Your task to perform on an android device: turn on translation in the chrome app Image 0: 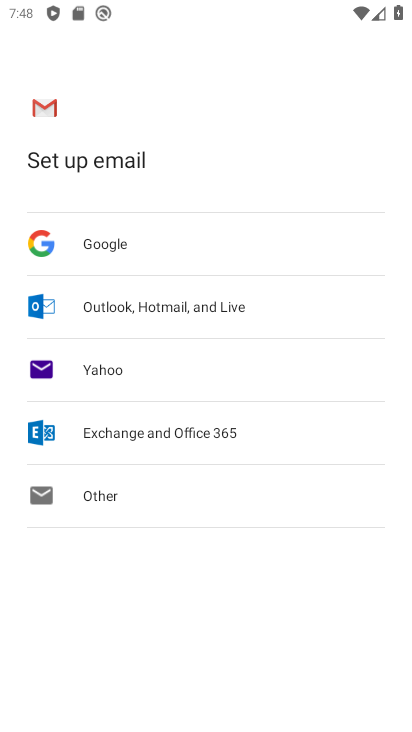
Step 0: press home button
Your task to perform on an android device: turn on translation in the chrome app Image 1: 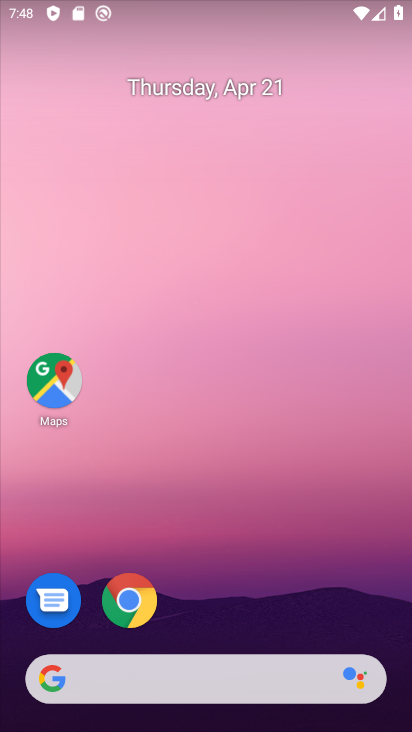
Step 1: click (128, 607)
Your task to perform on an android device: turn on translation in the chrome app Image 2: 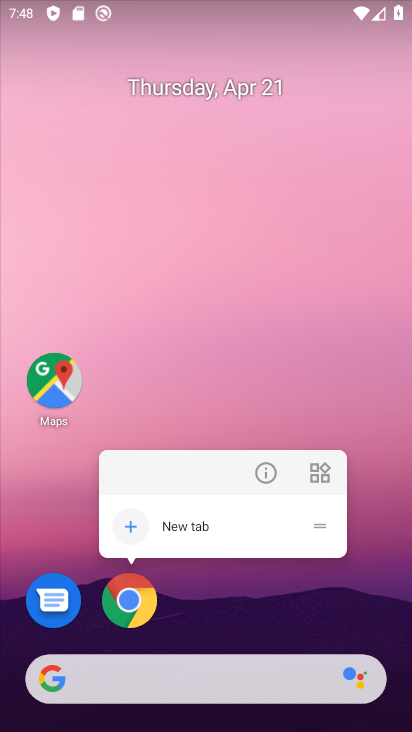
Step 2: click (134, 604)
Your task to perform on an android device: turn on translation in the chrome app Image 3: 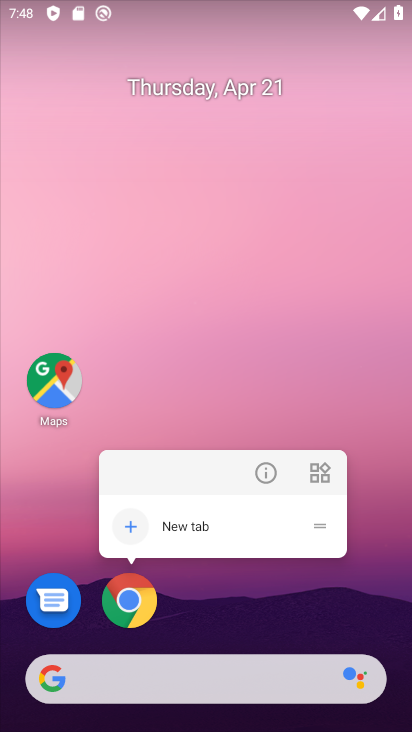
Step 3: click (131, 617)
Your task to perform on an android device: turn on translation in the chrome app Image 4: 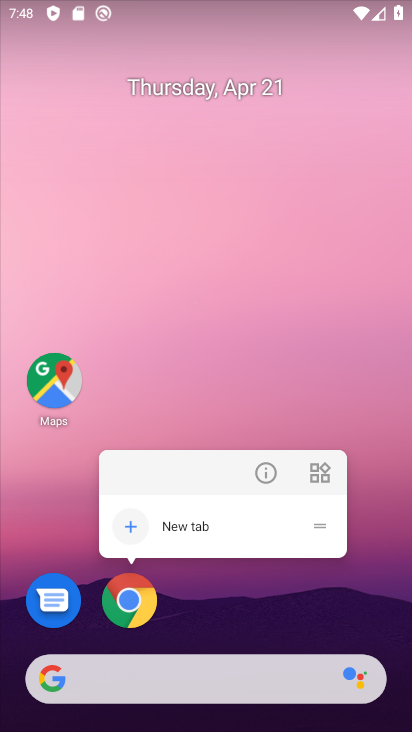
Step 4: click (127, 598)
Your task to perform on an android device: turn on translation in the chrome app Image 5: 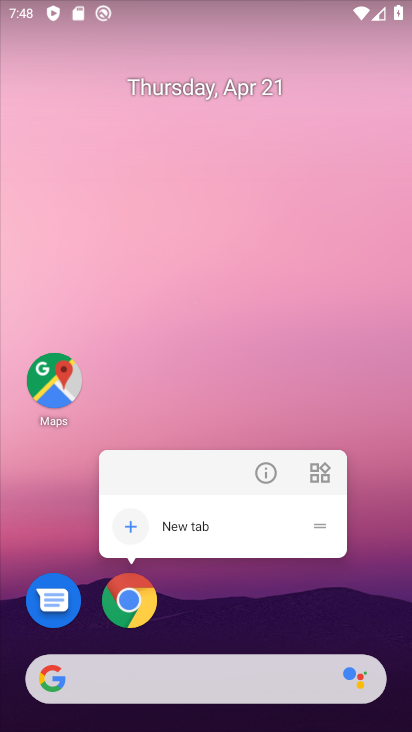
Step 5: click (131, 603)
Your task to perform on an android device: turn on translation in the chrome app Image 6: 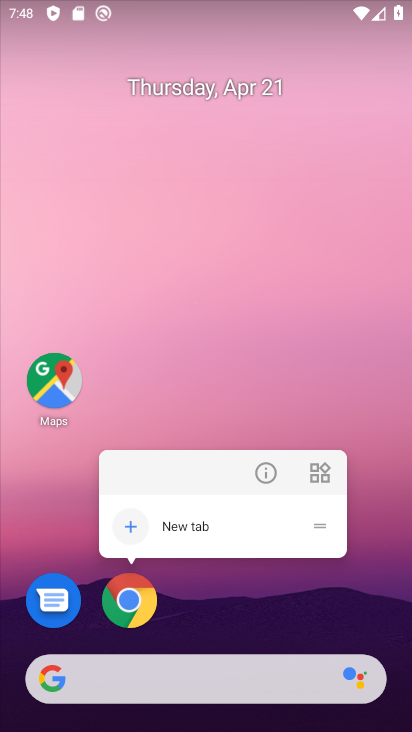
Step 6: click (132, 606)
Your task to perform on an android device: turn on translation in the chrome app Image 7: 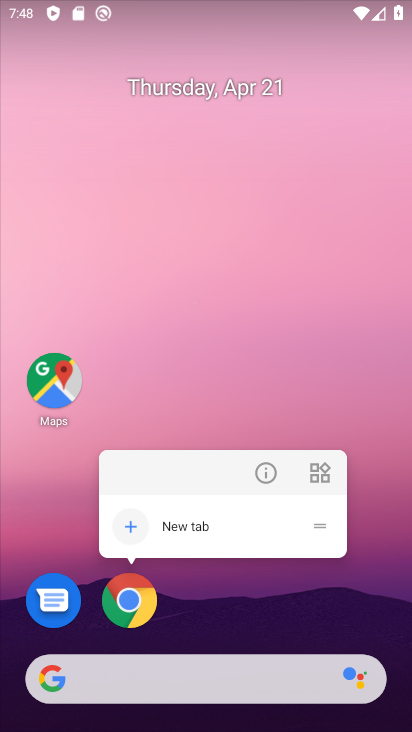
Step 7: click (132, 606)
Your task to perform on an android device: turn on translation in the chrome app Image 8: 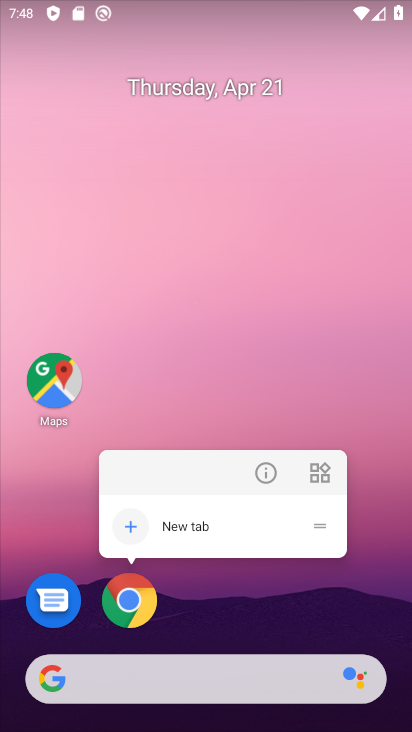
Step 8: click (128, 621)
Your task to perform on an android device: turn on translation in the chrome app Image 9: 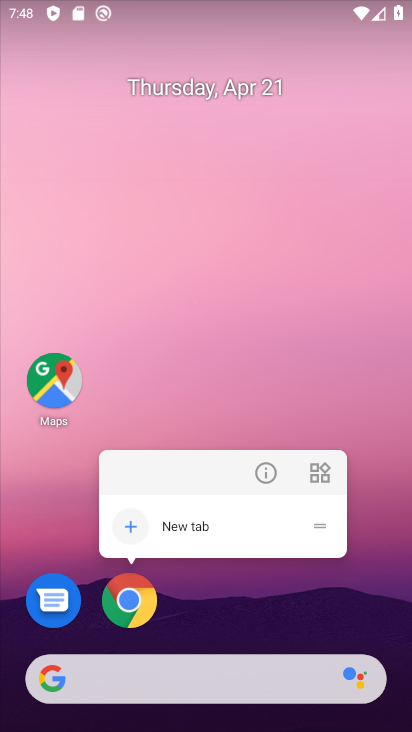
Step 9: click (138, 580)
Your task to perform on an android device: turn on translation in the chrome app Image 10: 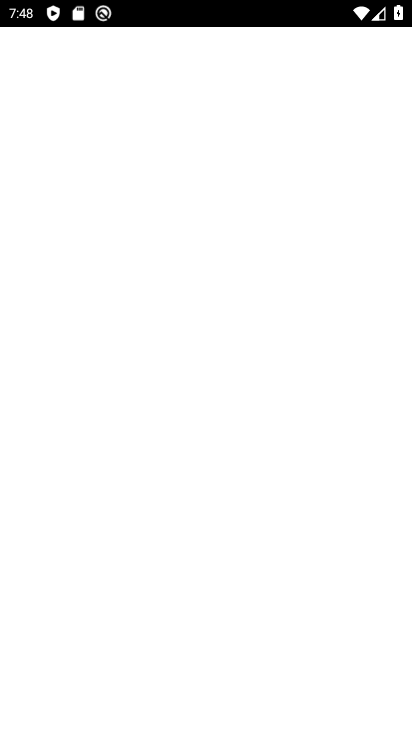
Step 10: click (136, 599)
Your task to perform on an android device: turn on translation in the chrome app Image 11: 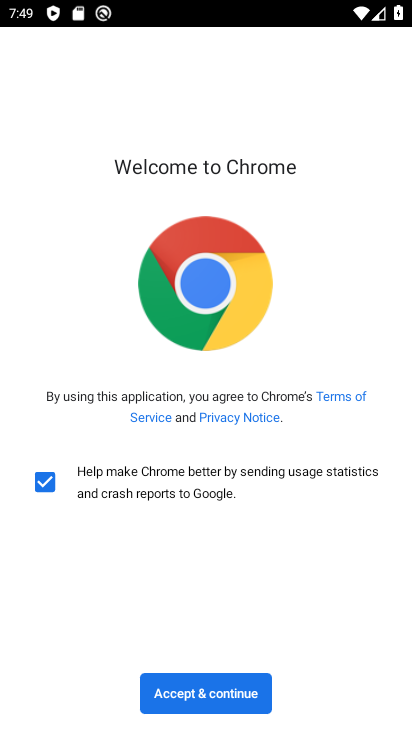
Step 11: click (185, 708)
Your task to perform on an android device: turn on translation in the chrome app Image 12: 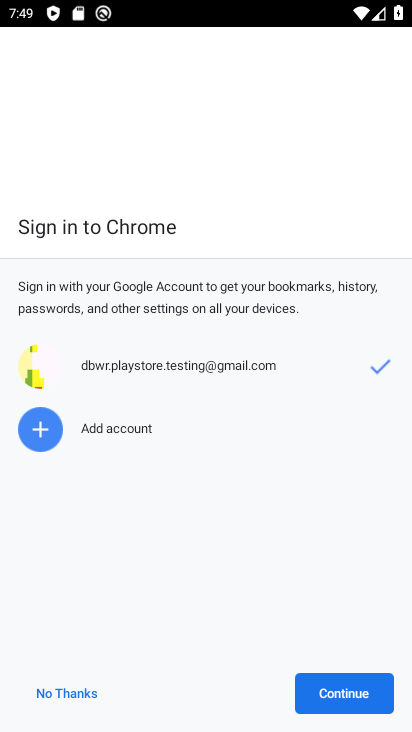
Step 12: click (374, 706)
Your task to perform on an android device: turn on translation in the chrome app Image 13: 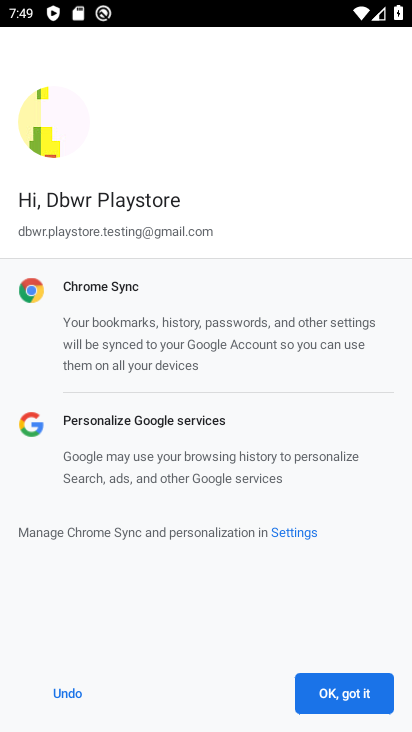
Step 13: click (347, 700)
Your task to perform on an android device: turn on translation in the chrome app Image 14: 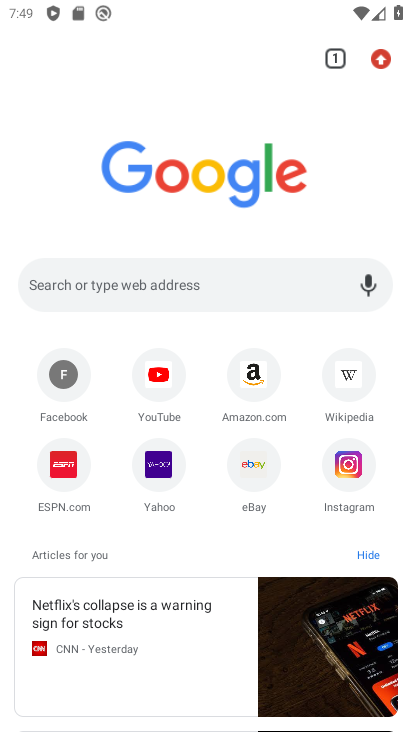
Step 14: click (380, 51)
Your task to perform on an android device: turn on translation in the chrome app Image 15: 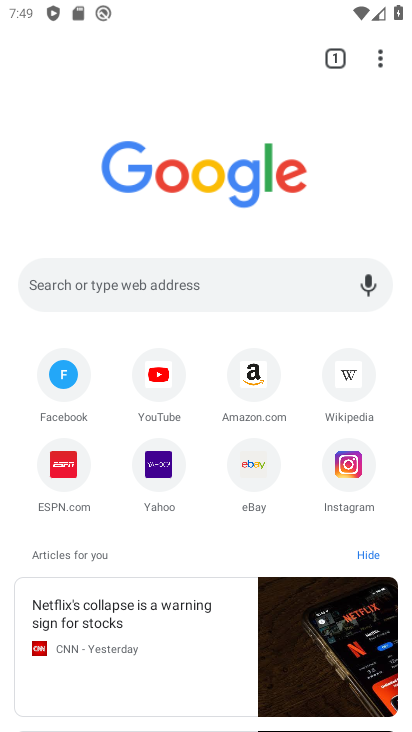
Step 15: click (382, 59)
Your task to perform on an android device: turn on translation in the chrome app Image 16: 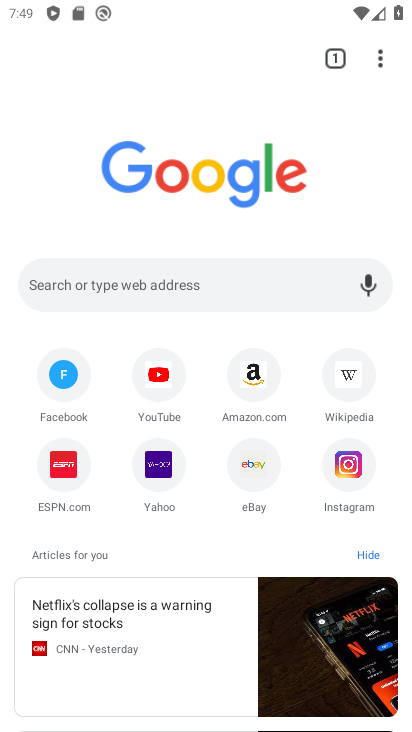
Step 16: click (379, 61)
Your task to perform on an android device: turn on translation in the chrome app Image 17: 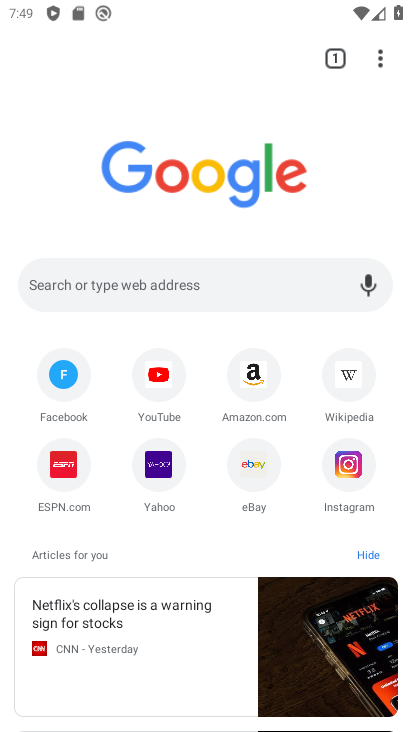
Step 17: click (384, 64)
Your task to perform on an android device: turn on translation in the chrome app Image 18: 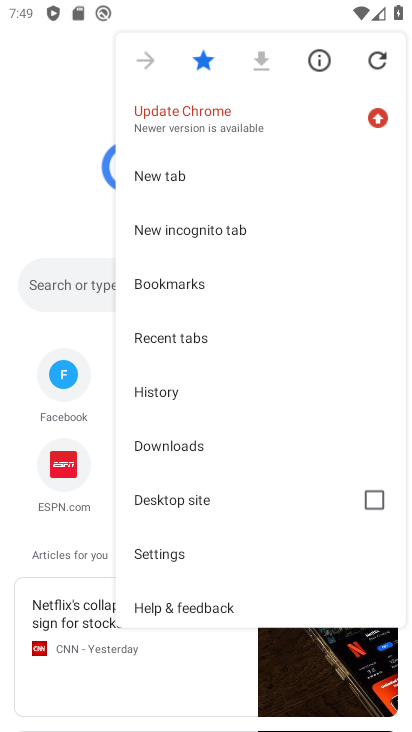
Step 18: drag from (192, 518) to (211, 265)
Your task to perform on an android device: turn on translation in the chrome app Image 19: 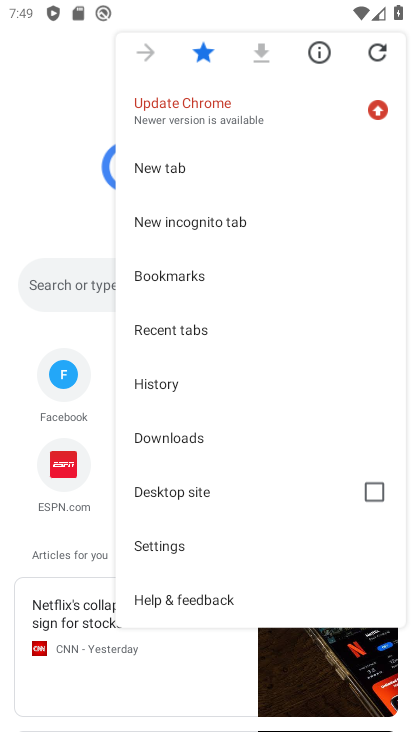
Step 19: click (165, 545)
Your task to perform on an android device: turn on translation in the chrome app Image 20: 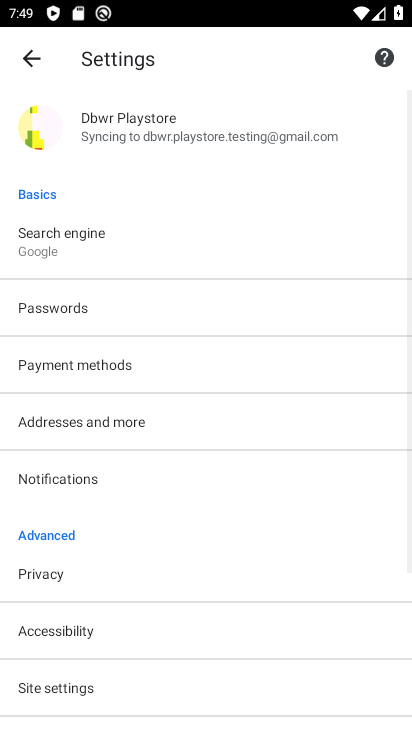
Step 20: drag from (143, 592) to (168, 306)
Your task to perform on an android device: turn on translation in the chrome app Image 21: 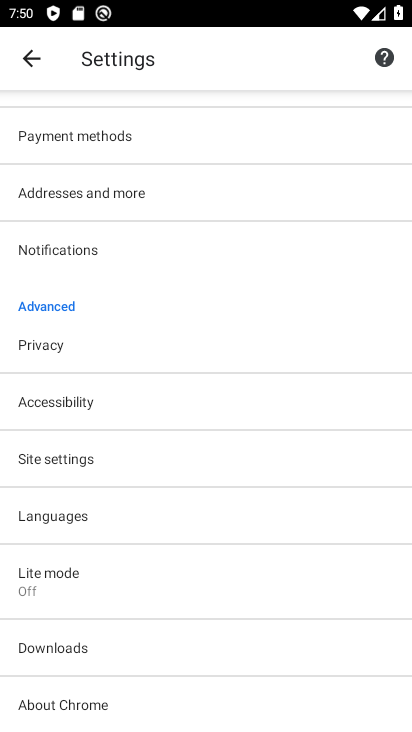
Step 21: click (81, 528)
Your task to perform on an android device: turn on translation in the chrome app Image 22: 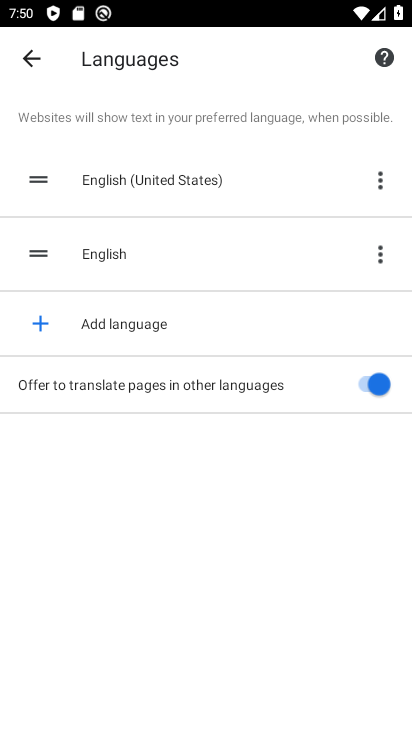
Step 22: task complete